Your task to perform on an android device: Open Yahoo.com Image 0: 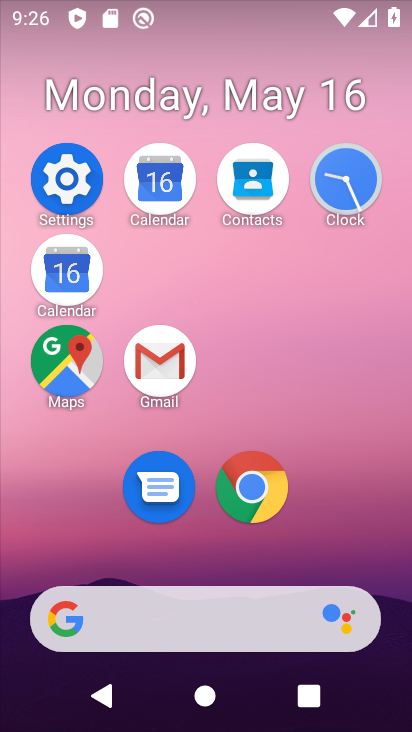
Step 0: click (236, 497)
Your task to perform on an android device: Open Yahoo.com Image 1: 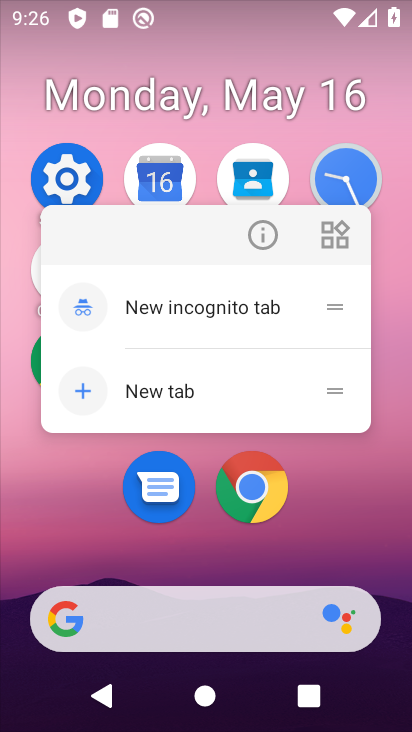
Step 1: click (236, 497)
Your task to perform on an android device: Open Yahoo.com Image 2: 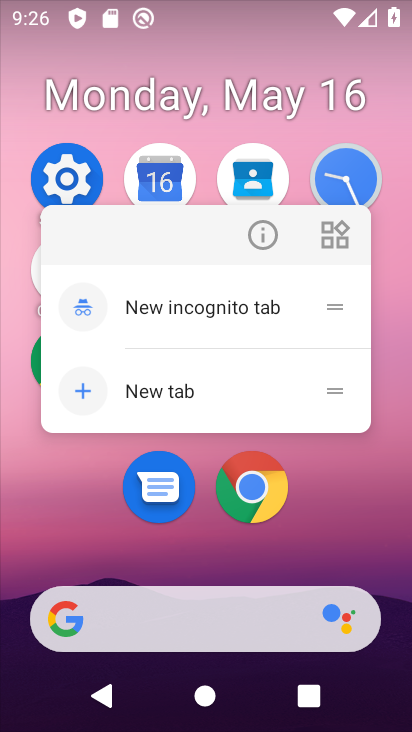
Step 2: click (236, 497)
Your task to perform on an android device: Open Yahoo.com Image 3: 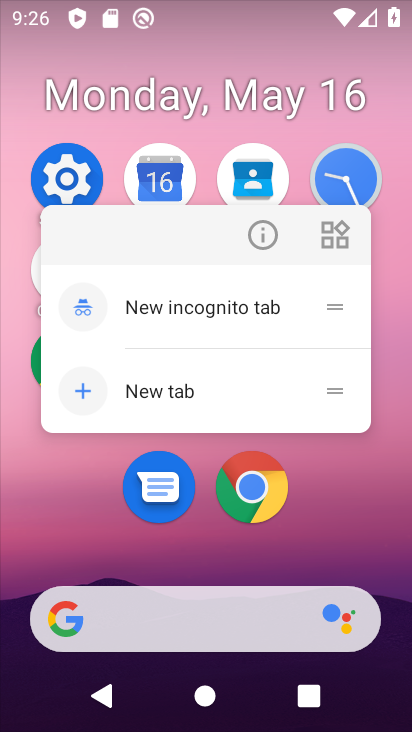
Step 3: click (236, 497)
Your task to perform on an android device: Open Yahoo.com Image 4: 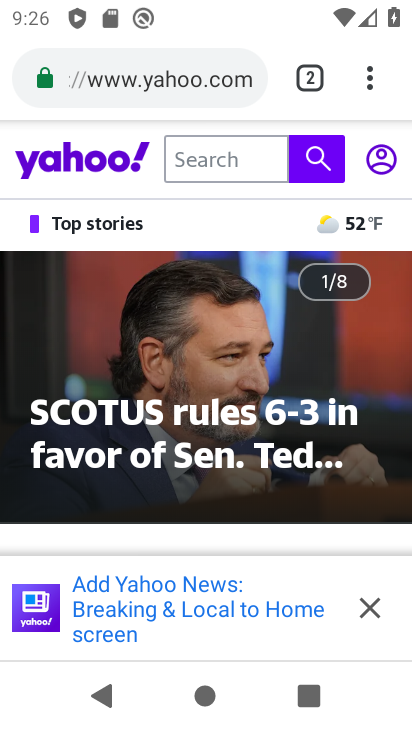
Step 4: click (311, 74)
Your task to perform on an android device: Open Yahoo.com Image 5: 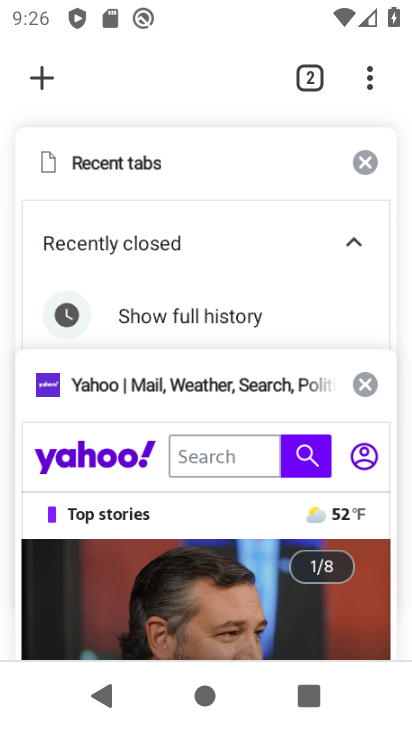
Step 5: click (119, 390)
Your task to perform on an android device: Open Yahoo.com Image 6: 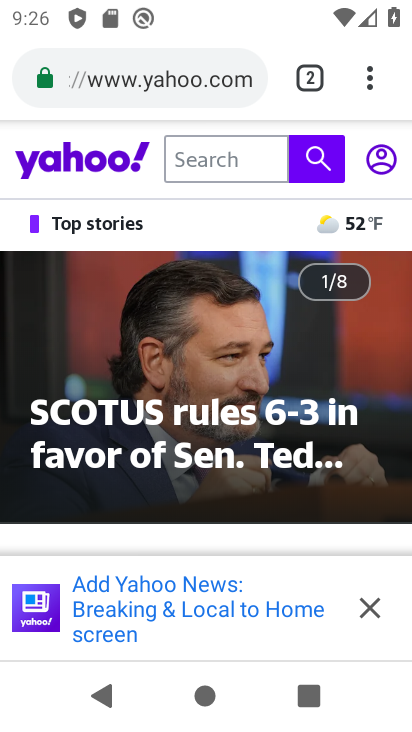
Step 6: task complete